Your task to perform on an android device: Open Reddit.com Image 0: 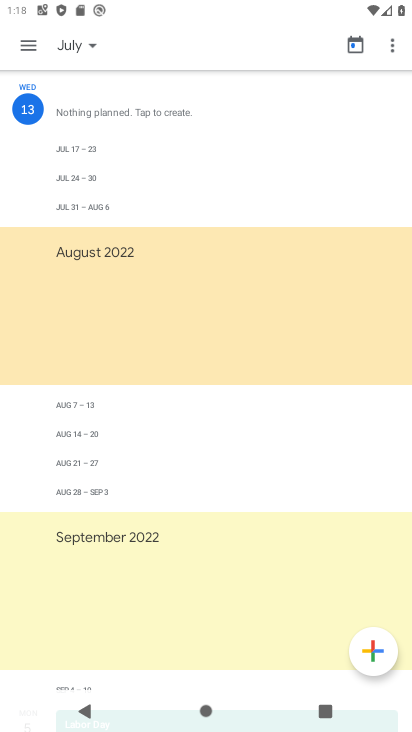
Step 0: press home button
Your task to perform on an android device: Open Reddit.com Image 1: 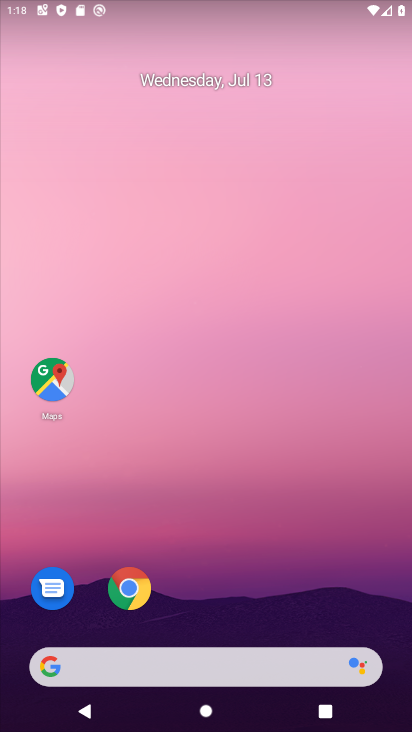
Step 1: drag from (171, 647) to (86, 345)
Your task to perform on an android device: Open Reddit.com Image 2: 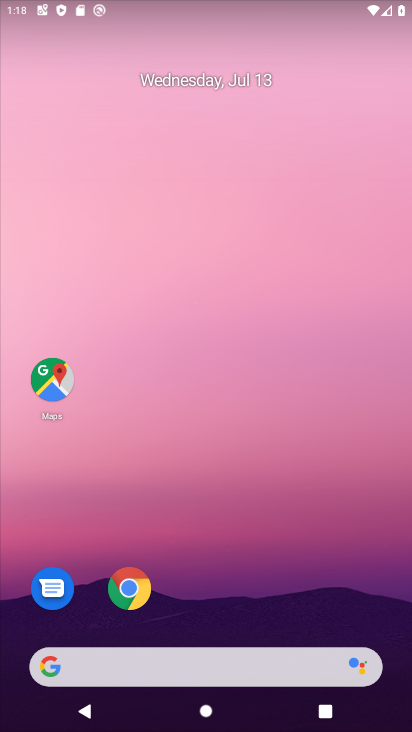
Step 2: drag from (232, 635) to (198, 259)
Your task to perform on an android device: Open Reddit.com Image 3: 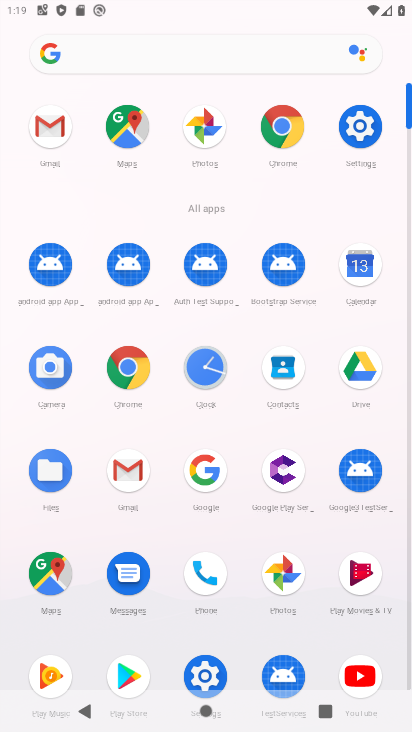
Step 3: click (212, 468)
Your task to perform on an android device: Open Reddit.com Image 4: 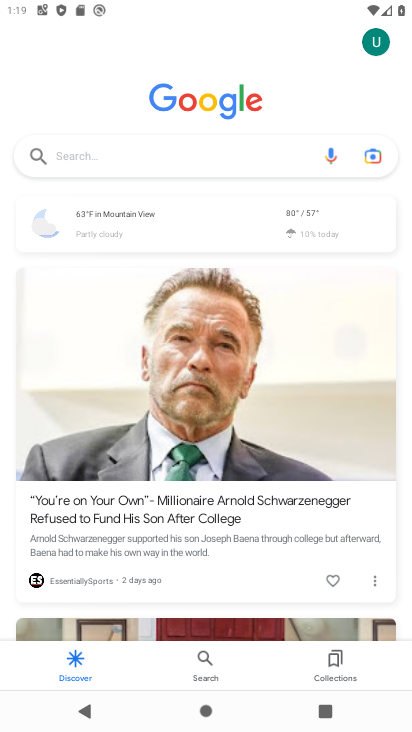
Step 4: click (98, 160)
Your task to perform on an android device: Open Reddit.com Image 5: 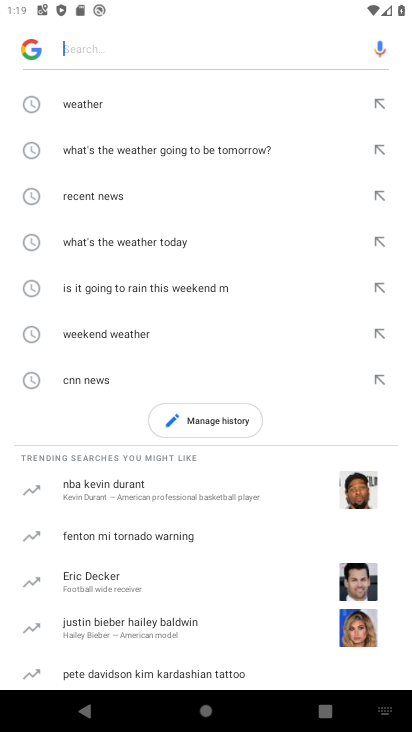
Step 5: type "reddit.com"
Your task to perform on an android device: Open Reddit.com Image 6: 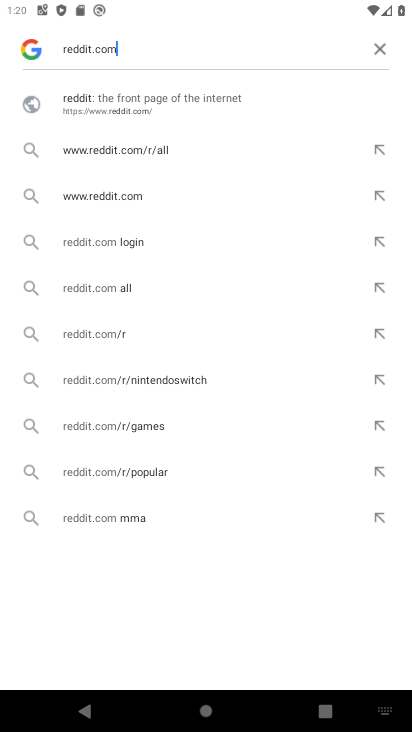
Step 6: click (101, 98)
Your task to perform on an android device: Open Reddit.com Image 7: 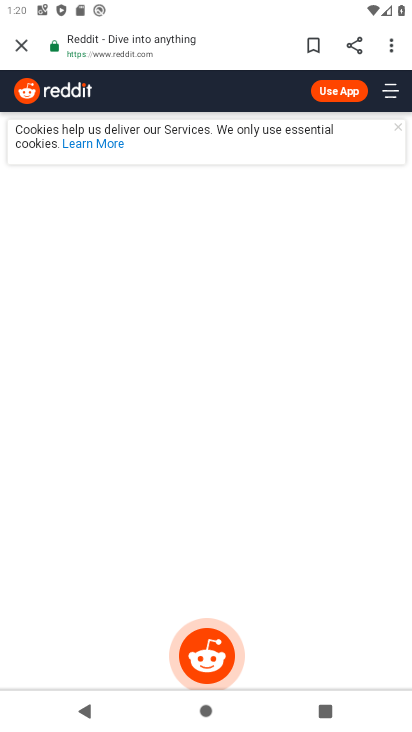
Step 7: task complete